Your task to perform on an android device: empty trash in the gmail app Image 0: 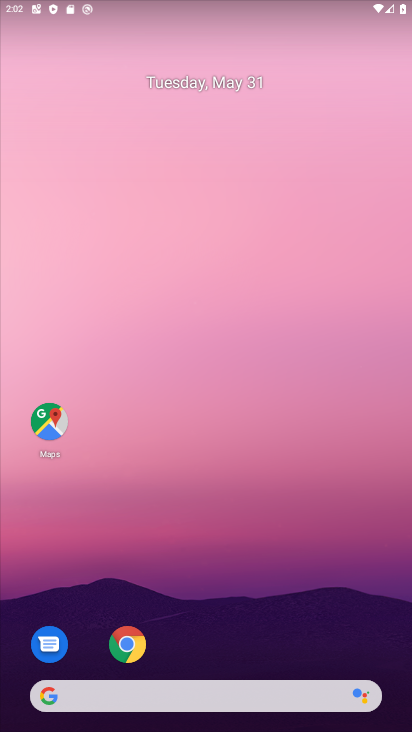
Step 0: drag from (395, 611) to (349, 164)
Your task to perform on an android device: empty trash in the gmail app Image 1: 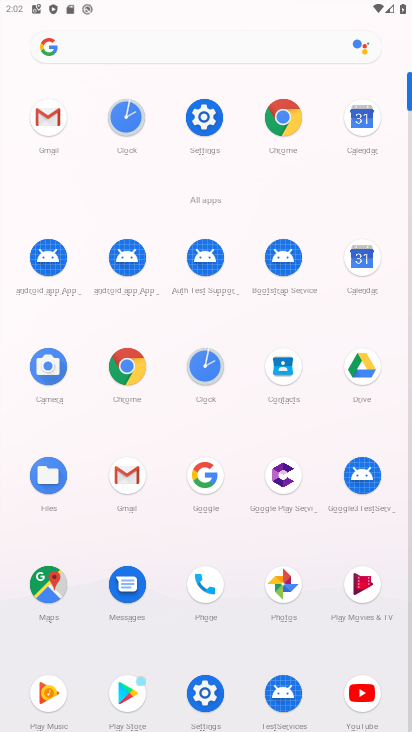
Step 1: click (43, 114)
Your task to perform on an android device: empty trash in the gmail app Image 2: 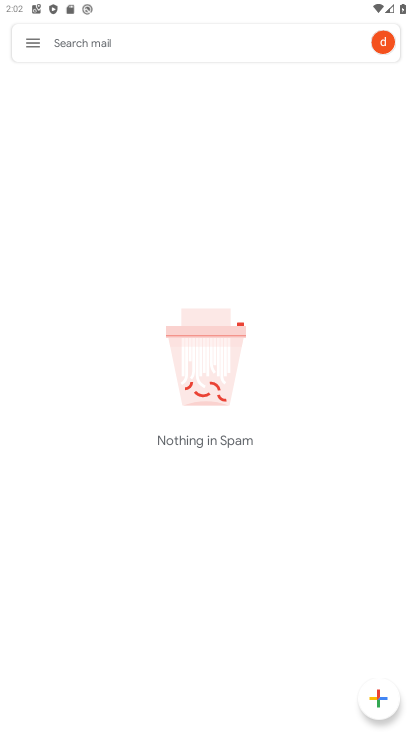
Step 2: click (35, 42)
Your task to perform on an android device: empty trash in the gmail app Image 3: 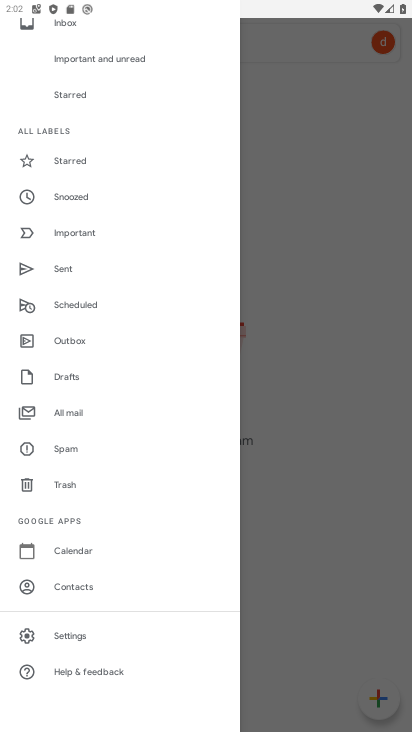
Step 3: click (44, 478)
Your task to perform on an android device: empty trash in the gmail app Image 4: 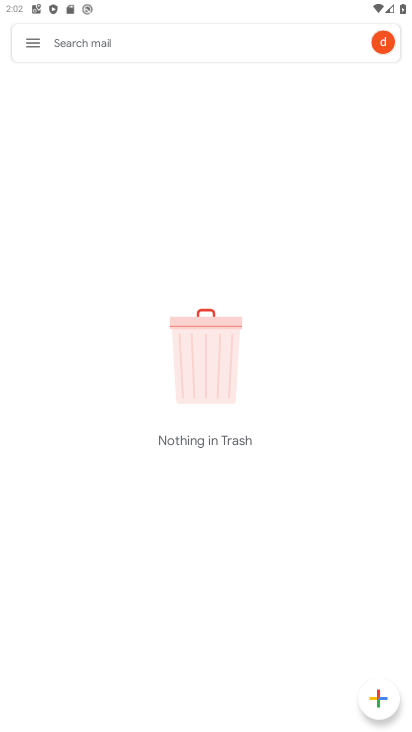
Step 4: task complete